Your task to perform on an android device: check battery use Image 0: 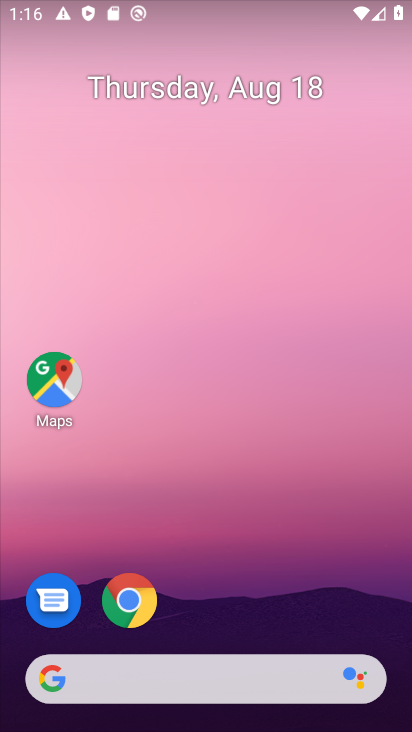
Step 0: drag from (298, 571) to (175, 70)
Your task to perform on an android device: check battery use Image 1: 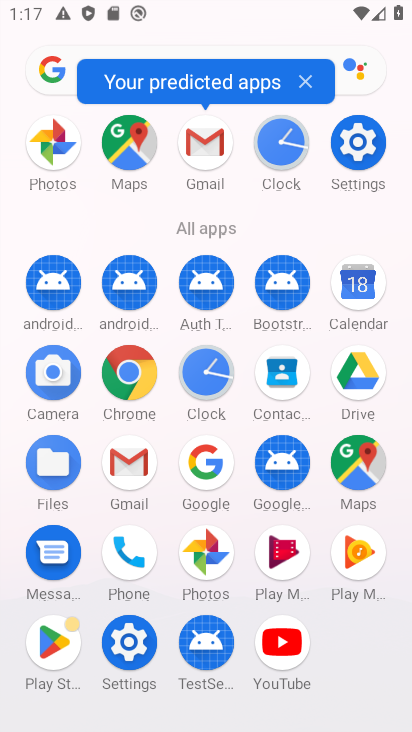
Step 1: click (126, 637)
Your task to perform on an android device: check battery use Image 2: 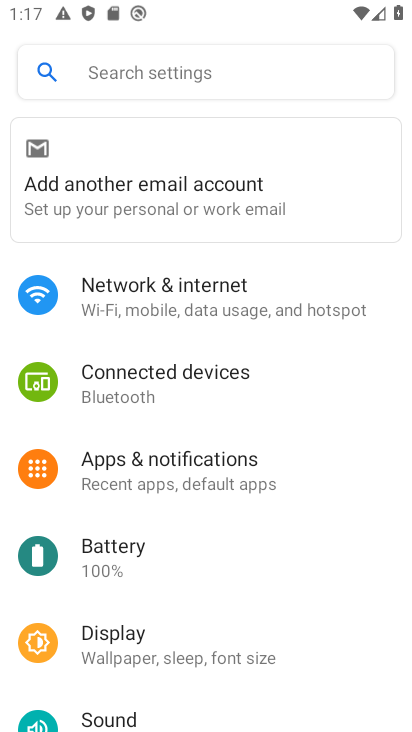
Step 2: click (119, 544)
Your task to perform on an android device: check battery use Image 3: 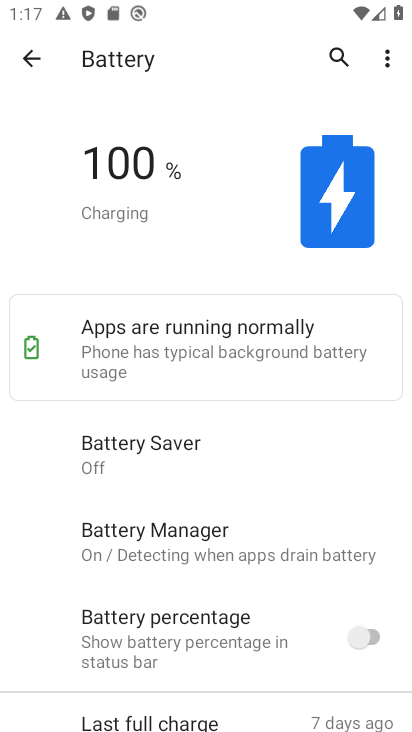
Step 3: task complete